Your task to perform on an android device: turn off location history Image 0: 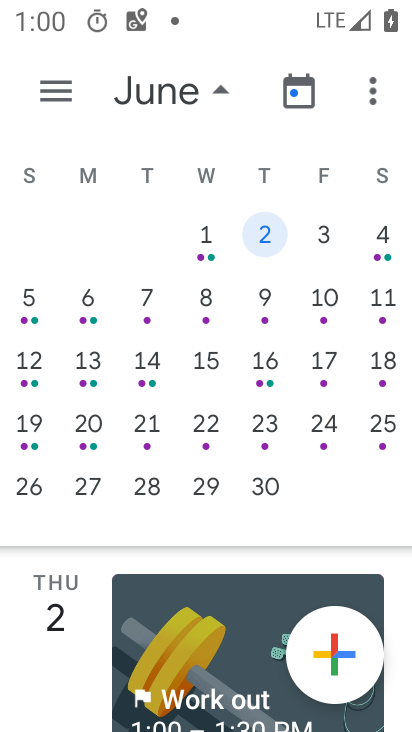
Step 0: press home button
Your task to perform on an android device: turn off location history Image 1: 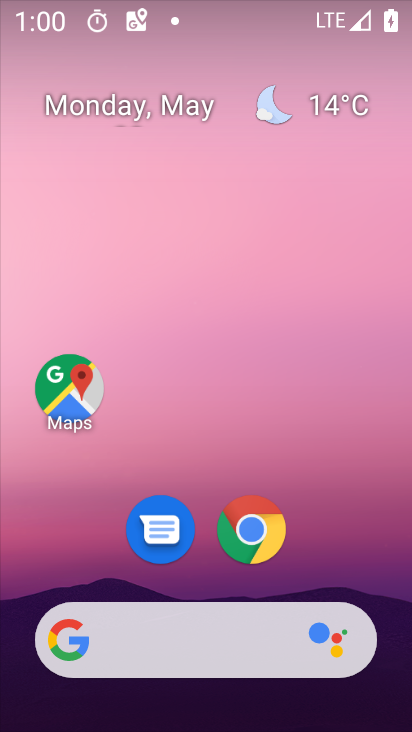
Step 1: drag from (370, 528) to (357, 188)
Your task to perform on an android device: turn off location history Image 2: 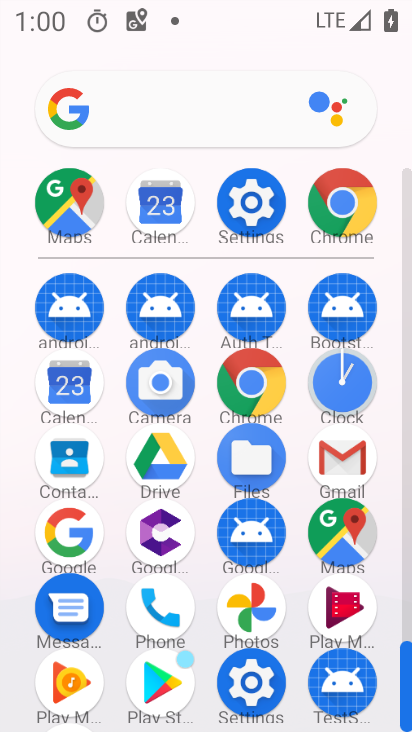
Step 2: click (259, 215)
Your task to perform on an android device: turn off location history Image 3: 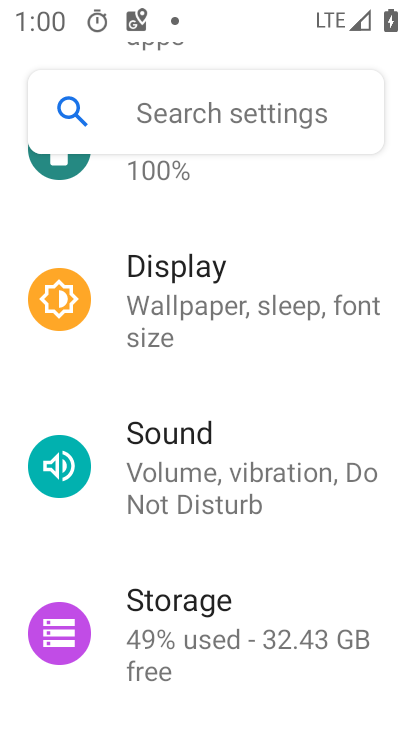
Step 3: drag from (383, 248) to (367, 393)
Your task to perform on an android device: turn off location history Image 4: 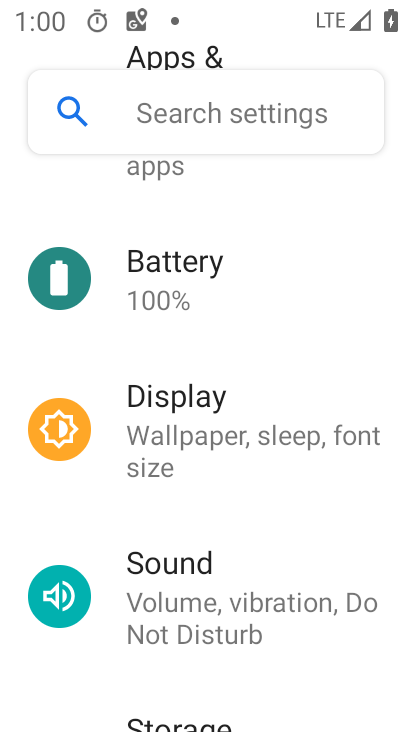
Step 4: drag from (368, 224) to (351, 383)
Your task to perform on an android device: turn off location history Image 5: 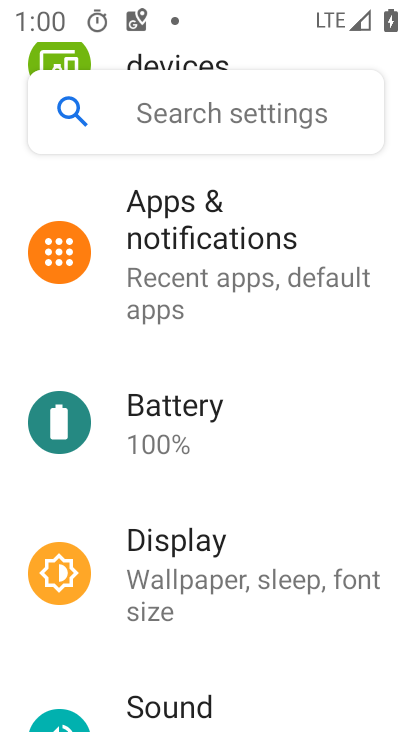
Step 5: drag from (346, 323) to (337, 456)
Your task to perform on an android device: turn off location history Image 6: 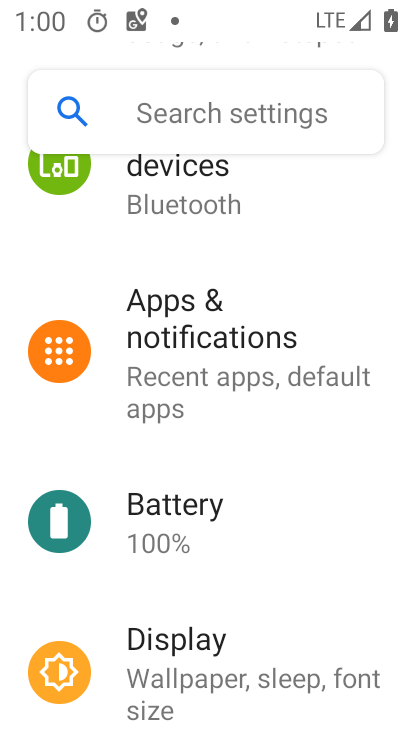
Step 6: drag from (335, 242) to (327, 404)
Your task to perform on an android device: turn off location history Image 7: 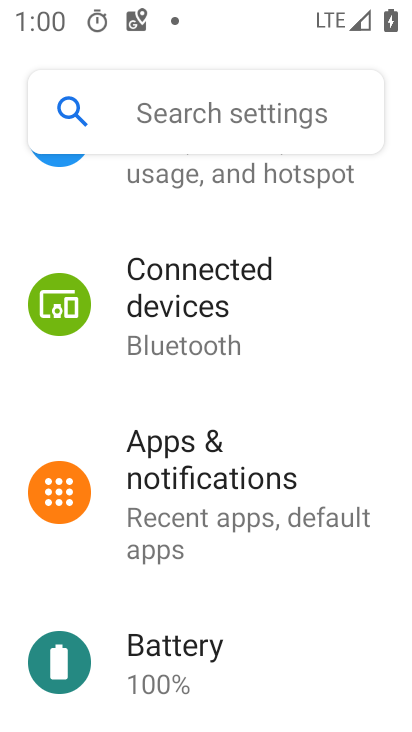
Step 7: drag from (342, 225) to (341, 366)
Your task to perform on an android device: turn off location history Image 8: 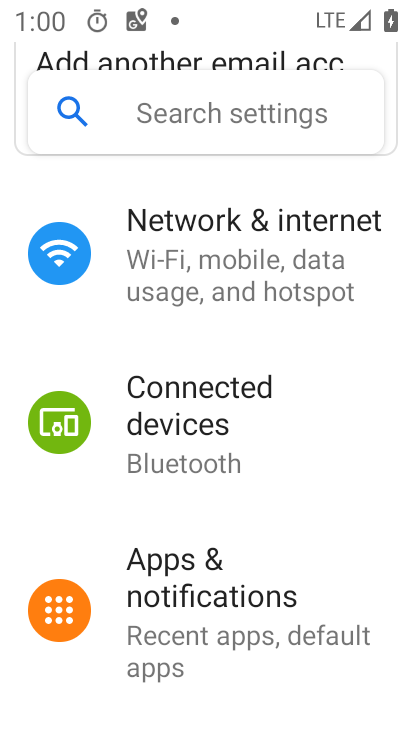
Step 8: drag from (387, 175) to (371, 338)
Your task to perform on an android device: turn off location history Image 9: 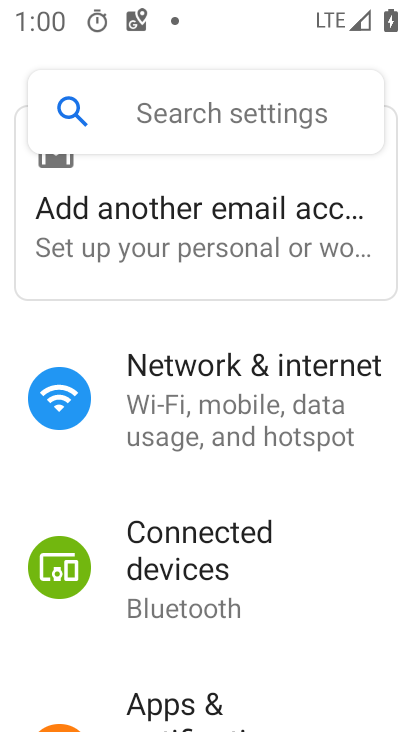
Step 9: drag from (366, 425) to (373, 288)
Your task to perform on an android device: turn off location history Image 10: 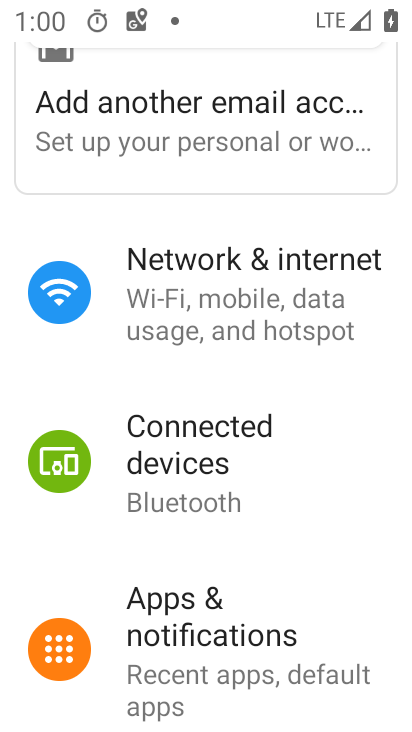
Step 10: drag from (366, 490) to (377, 348)
Your task to perform on an android device: turn off location history Image 11: 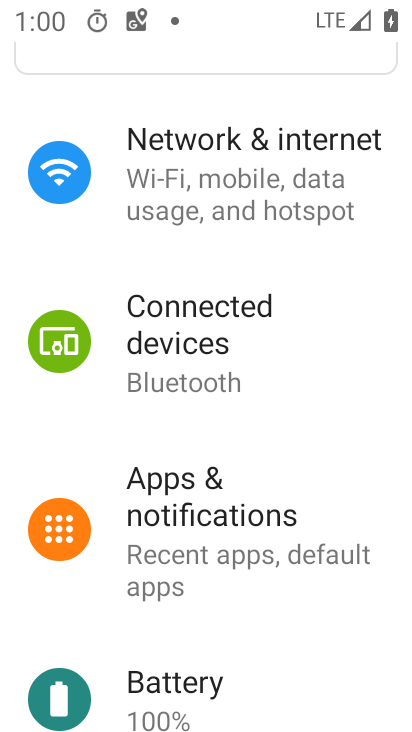
Step 11: drag from (362, 584) to (374, 447)
Your task to perform on an android device: turn off location history Image 12: 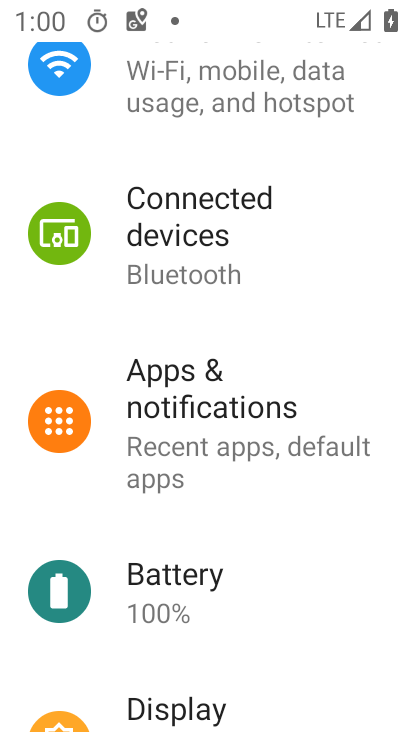
Step 12: drag from (358, 592) to (360, 452)
Your task to perform on an android device: turn off location history Image 13: 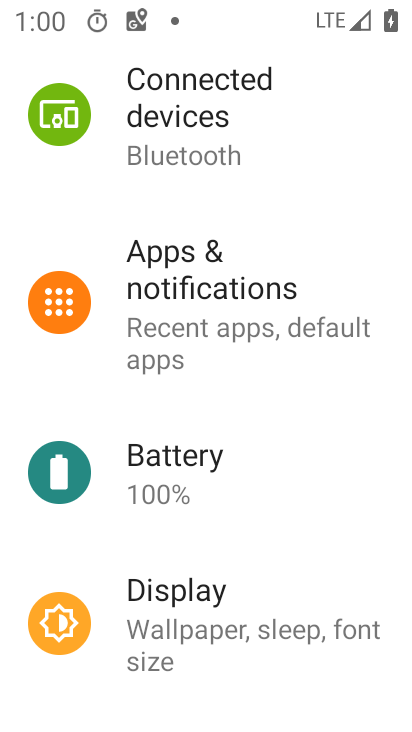
Step 13: drag from (361, 617) to (354, 478)
Your task to perform on an android device: turn off location history Image 14: 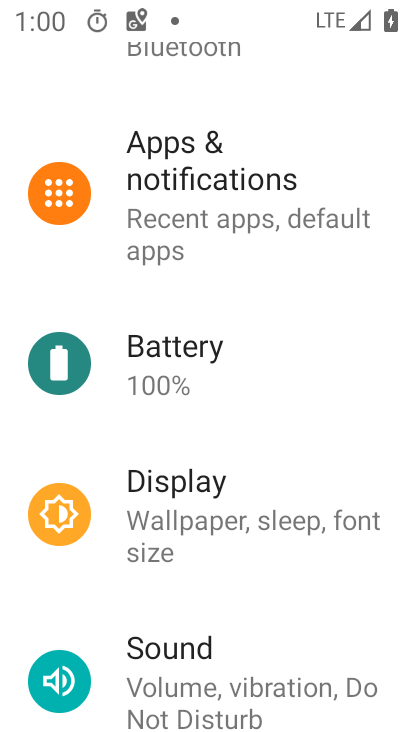
Step 14: drag from (332, 633) to (330, 524)
Your task to perform on an android device: turn off location history Image 15: 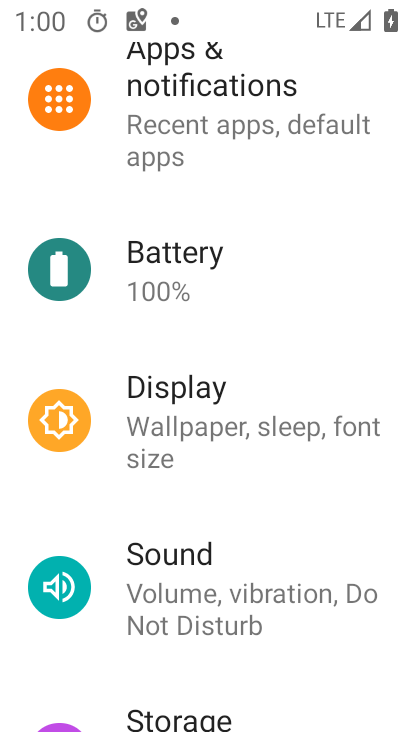
Step 15: drag from (331, 688) to (341, 534)
Your task to perform on an android device: turn off location history Image 16: 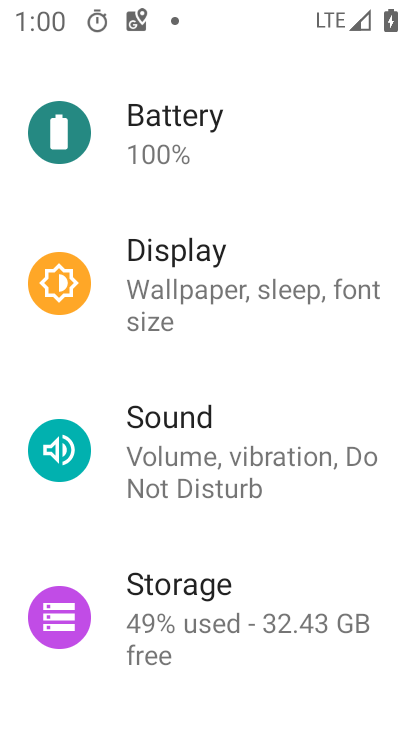
Step 16: drag from (341, 670) to (348, 529)
Your task to perform on an android device: turn off location history Image 17: 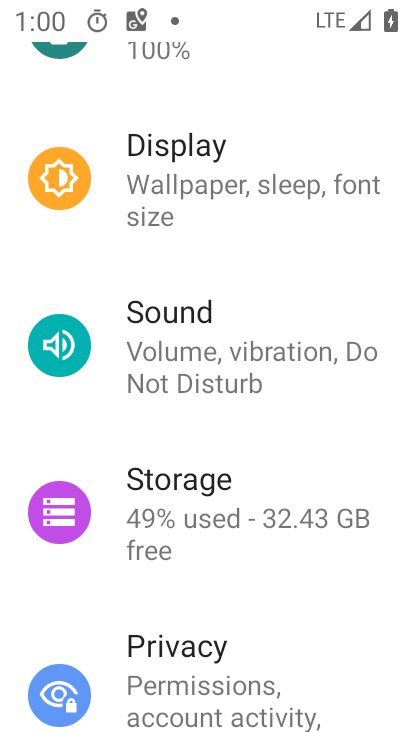
Step 17: drag from (346, 668) to (339, 558)
Your task to perform on an android device: turn off location history Image 18: 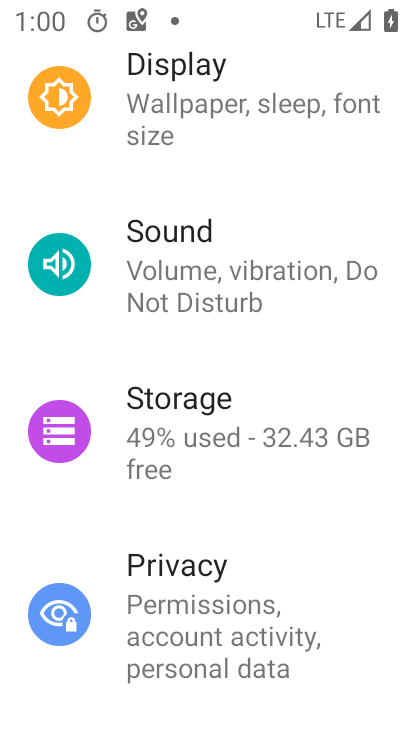
Step 18: drag from (352, 682) to (354, 578)
Your task to perform on an android device: turn off location history Image 19: 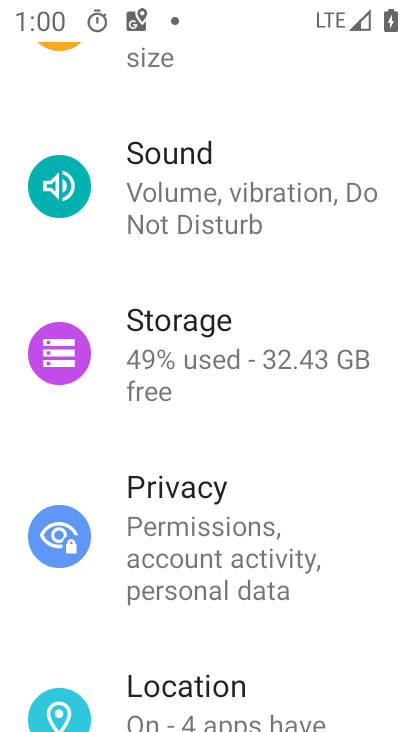
Step 19: drag from (352, 671) to (349, 554)
Your task to perform on an android device: turn off location history Image 20: 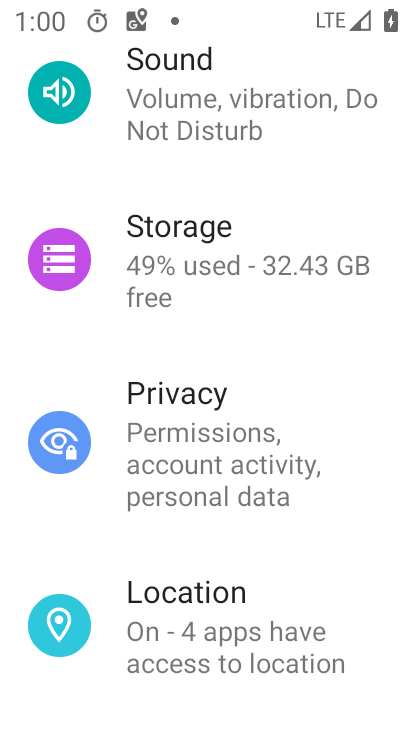
Step 20: drag from (354, 676) to (348, 577)
Your task to perform on an android device: turn off location history Image 21: 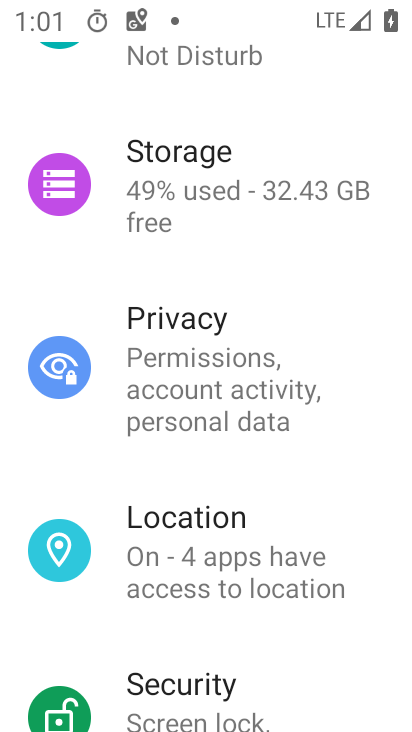
Step 21: drag from (349, 665) to (350, 564)
Your task to perform on an android device: turn off location history Image 22: 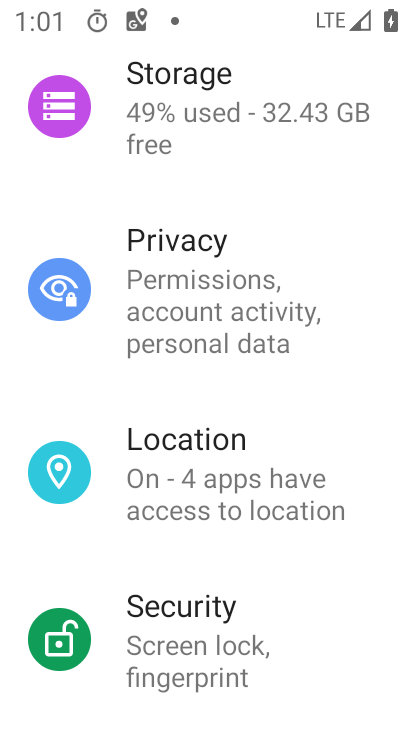
Step 22: drag from (367, 613) to (361, 495)
Your task to perform on an android device: turn off location history Image 23: 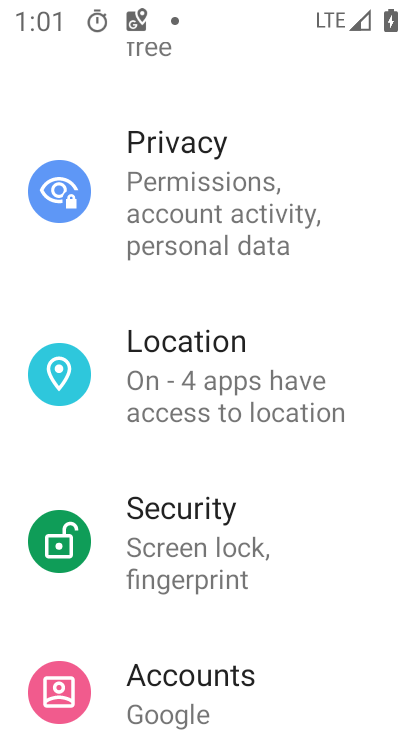
Step 23: click (339, 420)
Your task to perform on an android device: turn off location history Image 24: 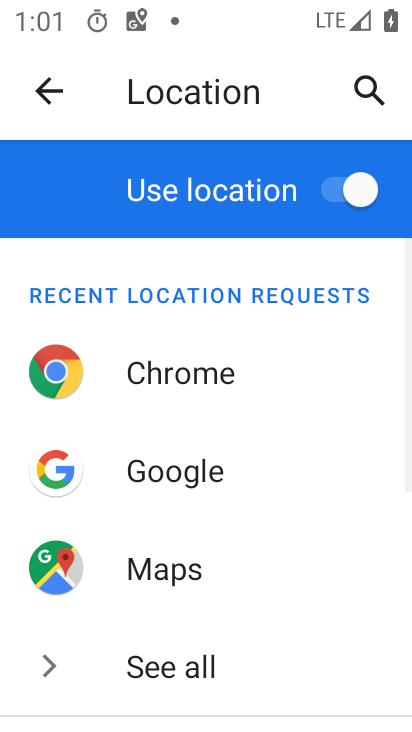
Step 24: drag from (346, 623) to (348, 500)
Your task to perform on an android device: turn off location history Image 25: 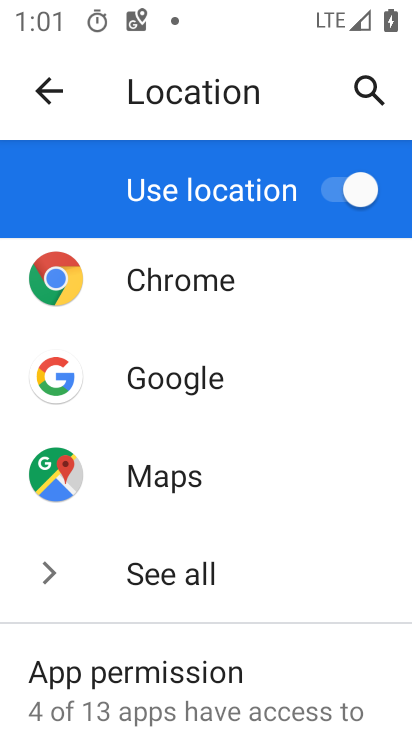
Step 25: drag from (350, 657) to (357, 529)
Your task to perform on an android device: turn off location history Image 26: 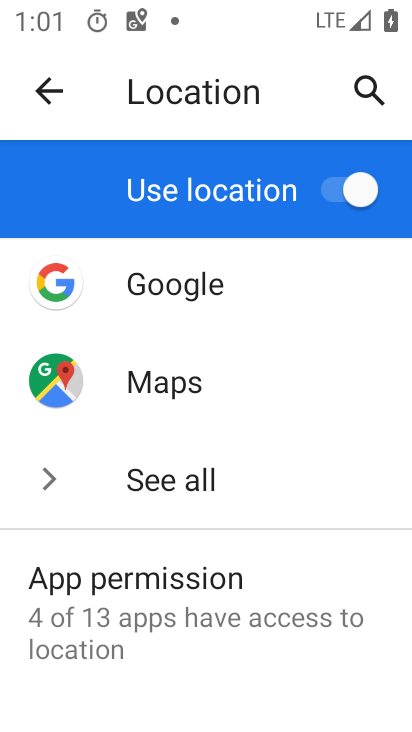
Step 26: drag from (361, 676) to (365, 501)
Your task to perform on an android device: turn off location history Image 27: 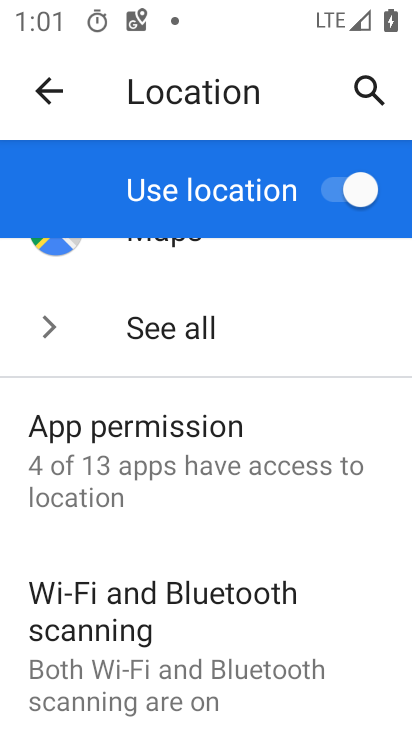
Step 27: drag from (372, 676) to (364, 516)
Your task to perform on an android device: turn off location history Image 28: 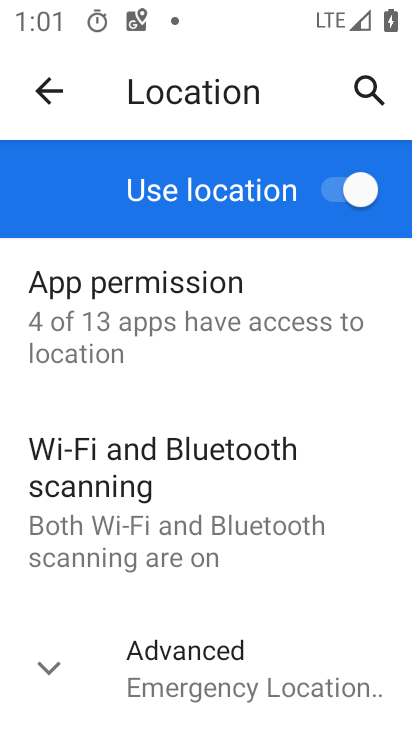
Step 28: drag from (348, 609) to (345, 392)
Your task to perform on an android device: turn off location history Image 29: 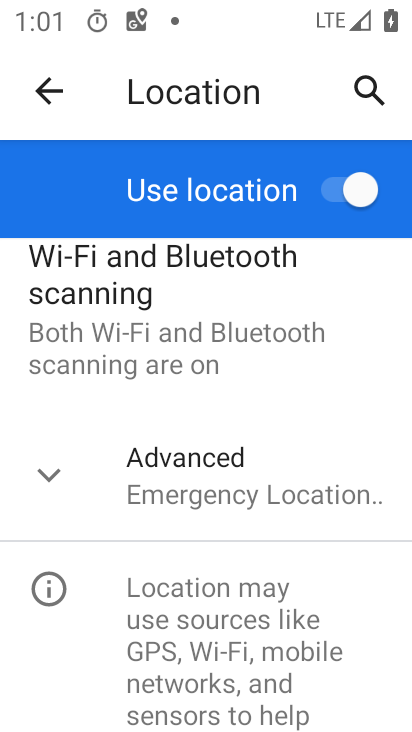
Step 29: click (306, 515)
Your task to perform on an android device: turn off location history Image 30: 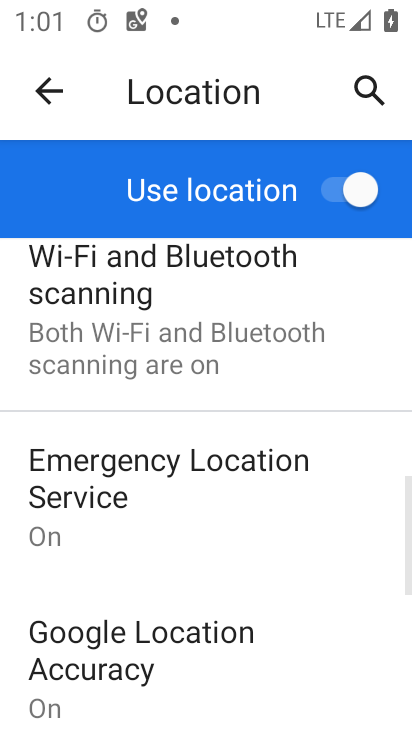
Step 30: task complete